Your task to perform on an android device: turn off data saver in the chrome app Image 0: 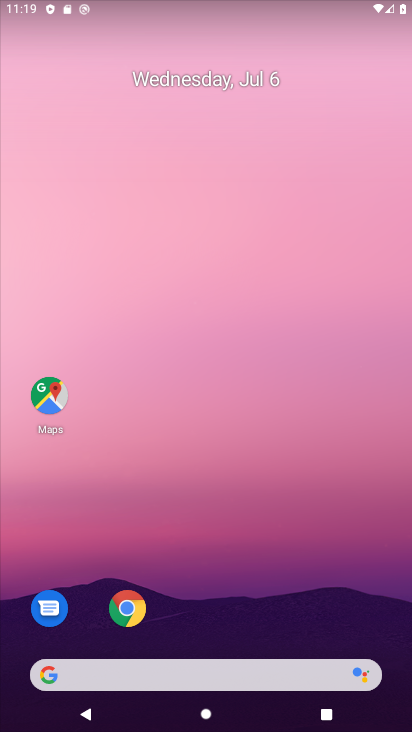
Step 0: drag from (257, 706) to (189, 118)
Your task to perform on an android device: turn off data saver in the chrome app Image 1: 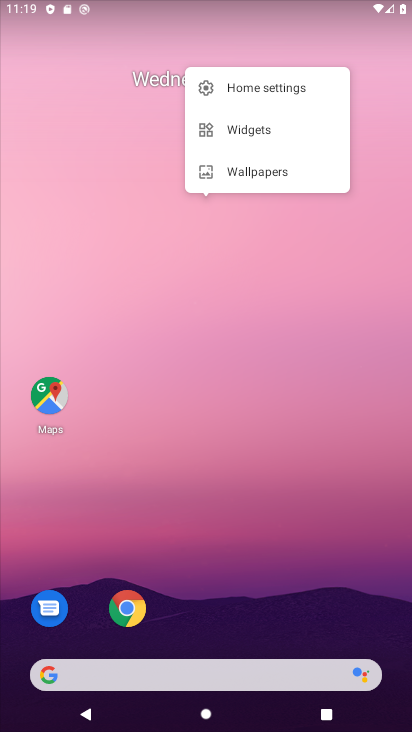
Step 1: drag from (274, 668) to (170, 164)
Your task to perform on an android device: turn off data saver in the chrome app Image 2: 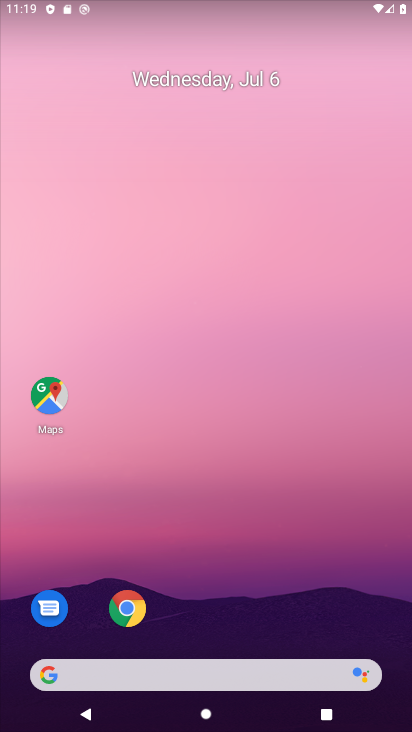
Step 2: drag from (300, 603) to (35, 49)
Your task to perform on an android device: turn off data saver in the chrome app Image 3: 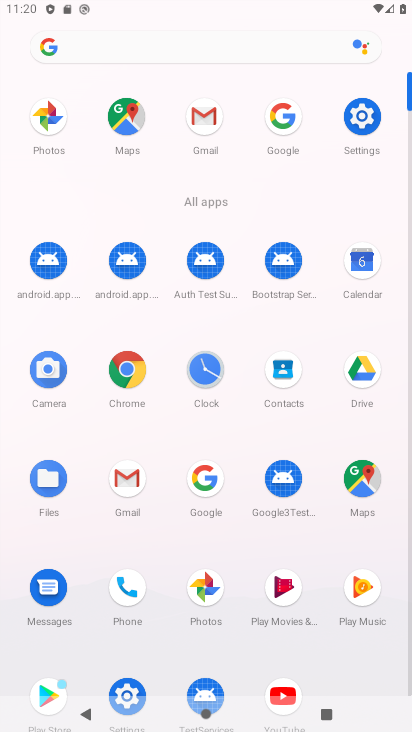
Step 3: click (125, 363)
Your task to perform on an android device: turn off data saver in the chrome app Image 4: 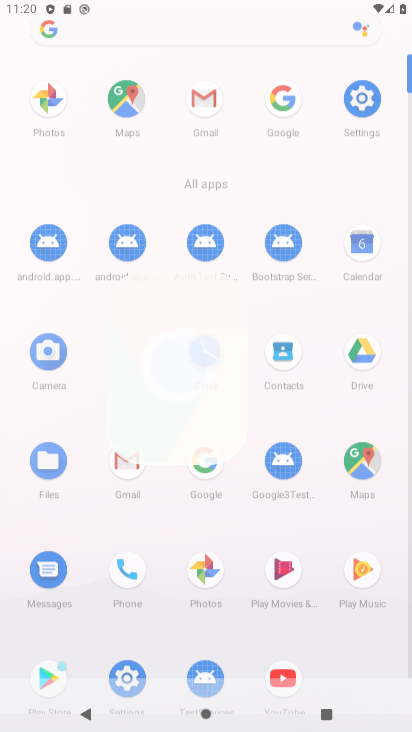
Step 4: click (129, 364)
Your task to perform on an android device: turn off data saver in the chrome app Image 5: 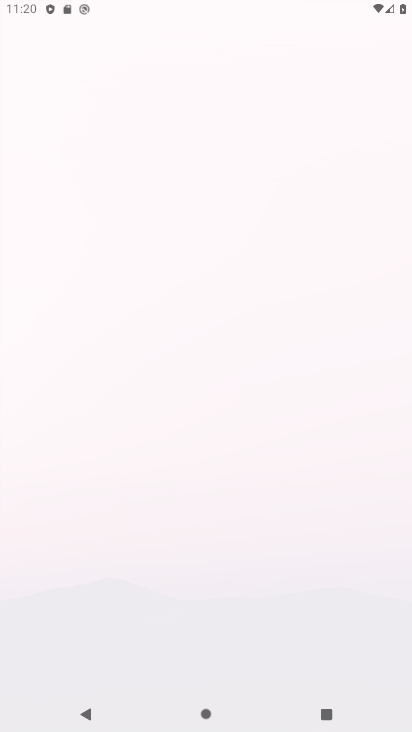
Step 5: click (130, 364)
Your task to perform on an android device: turn off data saver in the chrome app Image 6: 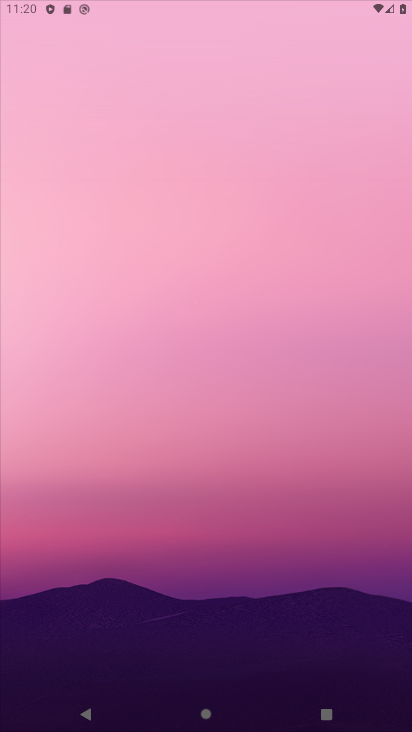
Step 6: click (131, 364)
Your task to perform on an android device: turn off data saver in the chrome app Image 7: 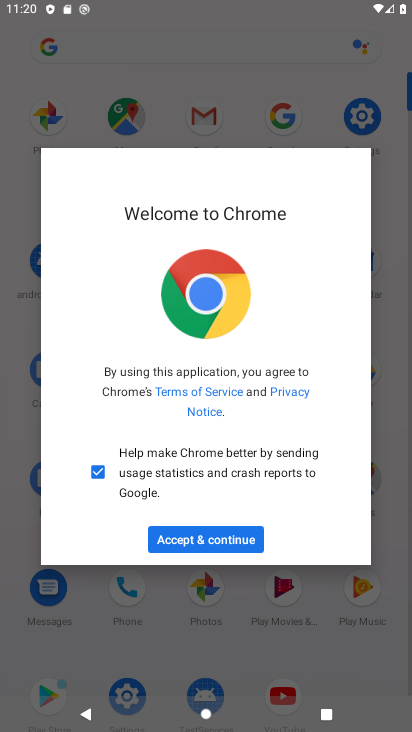
Step 7: click (222, 537)
Your task to perform on an android device: turn off data saver in the chrome app Image 8: 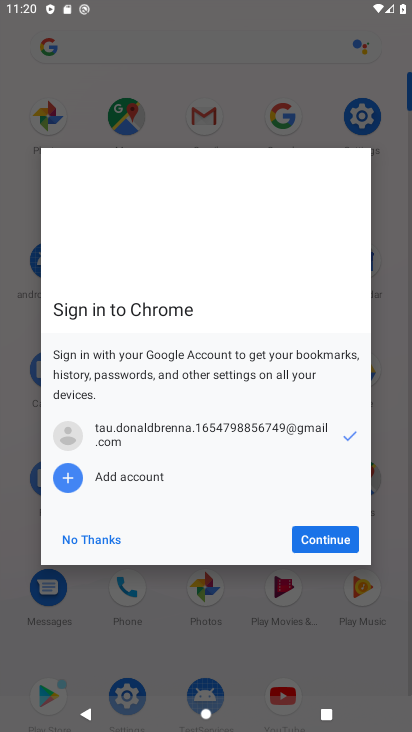
Step 8: click (226, 536)
Your task to perform on an android device: turn off data saver in the chrome app Image 9: 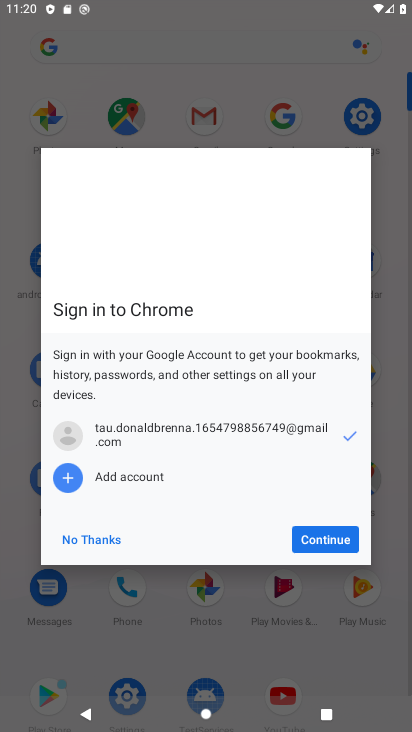
Step 9: click (314, 533)
Your task to perform on an android device: turn off data saver in the chrome app Image 10: 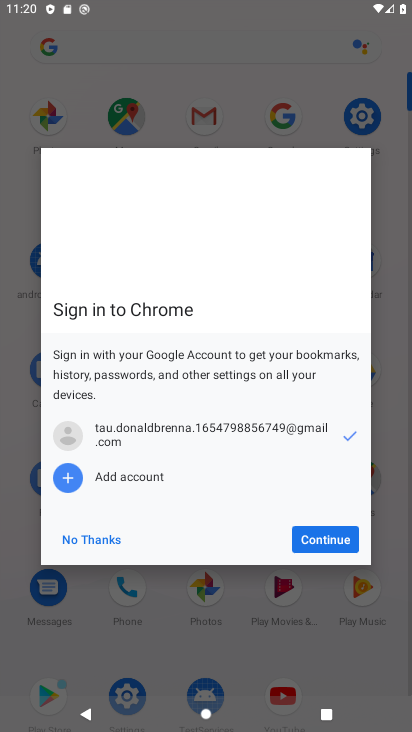
Step 10: click (316, 536)
Your task to perform on an android device: turn off data saver in the chrome app Image 11: 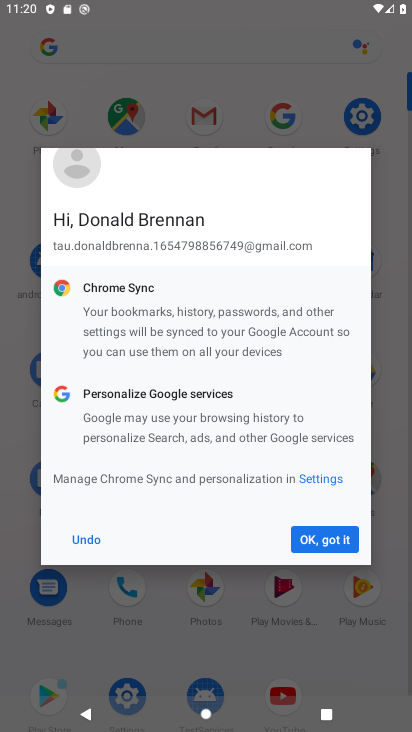
Step 11: click (320, 542)
Your task to perform on an android device: turn off data saver in the chrome app Image 12: 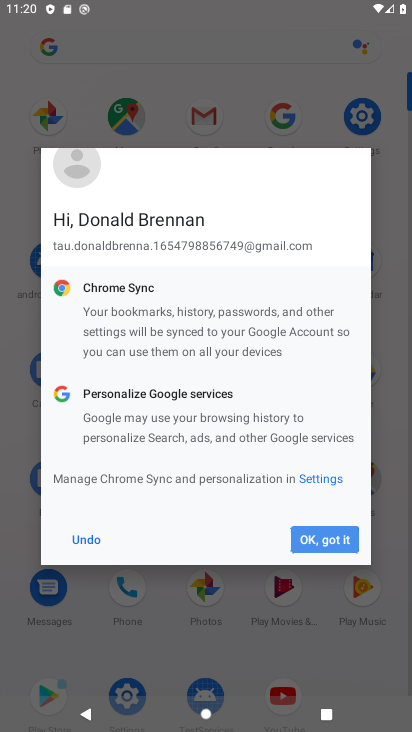
Step 12: click (328, 528)
Your task to perform on an android device: turn off data saver in the chrome app Image 13: 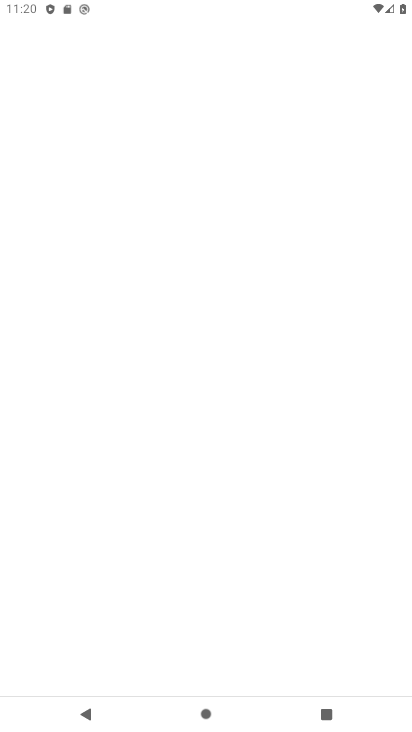
Step 13: click (332, 528)
Your task to perform on an android device: turn off data saver in the chrome app Image 14: 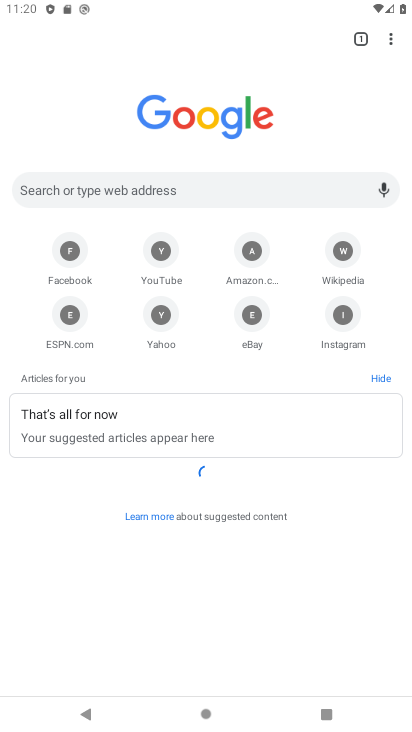
Step 14: drag from (388, 38) to (267, 329)
Your task to perform on an android device: turn off data saver in the chrome app Image 15: 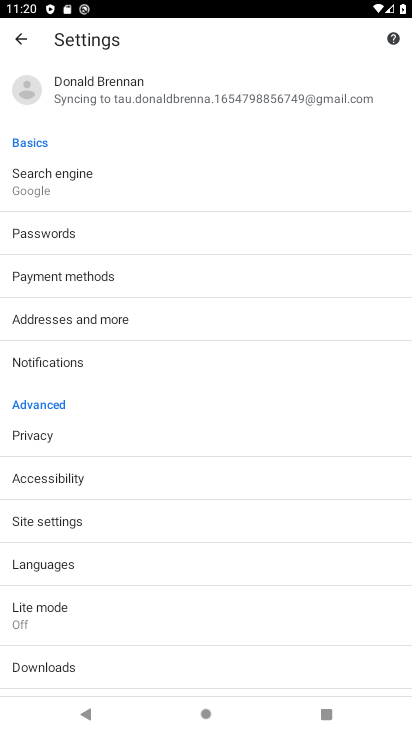
Step 15: click (27, 621)
Your task to perform on an android device: turn off data saver in the chrome app Image 16: 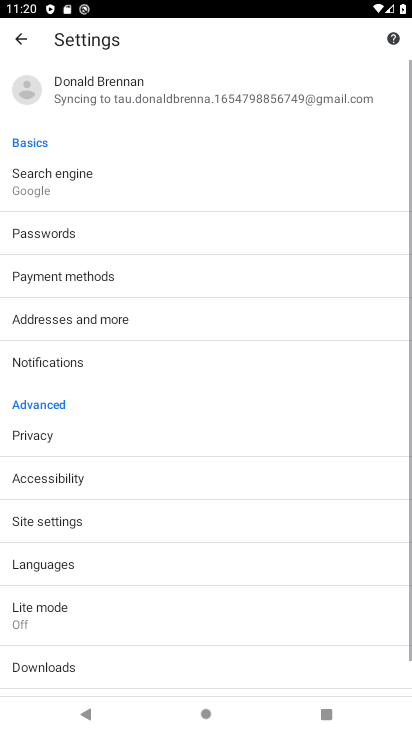
Step 16: click (43, 607)
Your task to perform on an android device: turn off data saver in the chrome app Image 17: 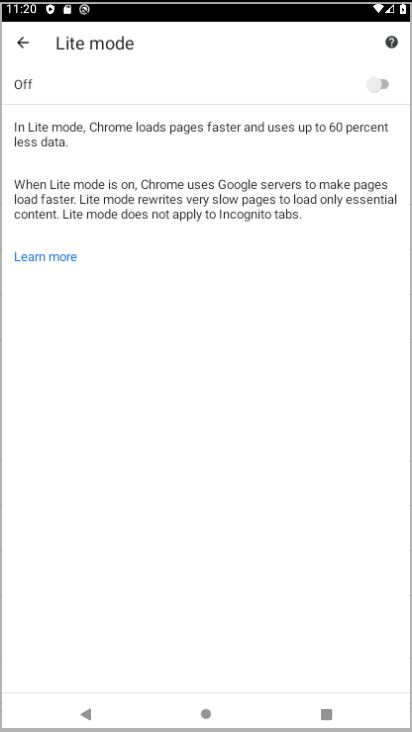
Step 17: click (48, 604)
Your task to perform on an android device: turn off data saver in the chrome app Image 18: 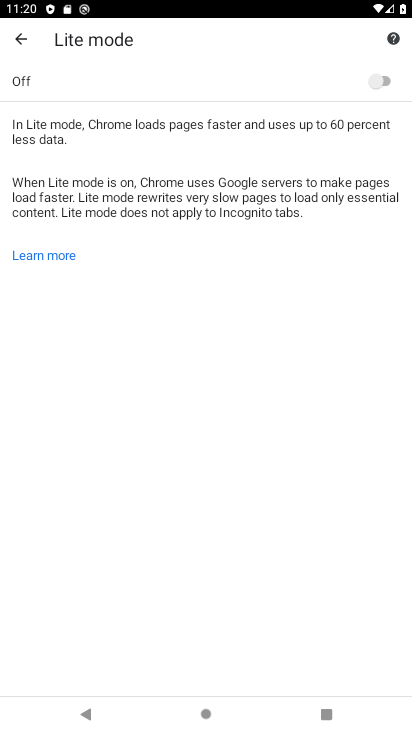
Step 18: task complete